Your task to perform on an android device: turn on improve location accuracy Image 0: 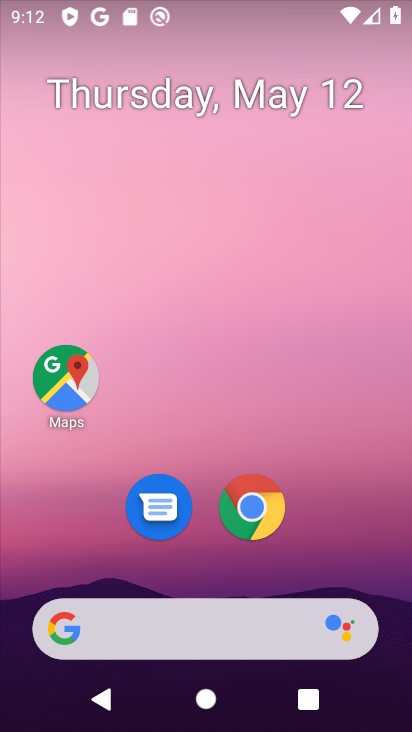
Step 0: drag from (184, 566) to (189, 173)
Your task to perform on an android device: turn on improve location accuracy Image 1: 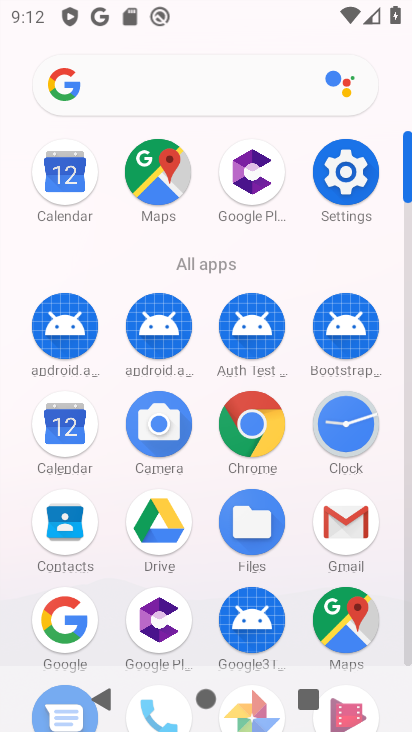
Step 1: click (327, 164)
Your task to perform on an android device: turn on improve location accuracy Image 2: 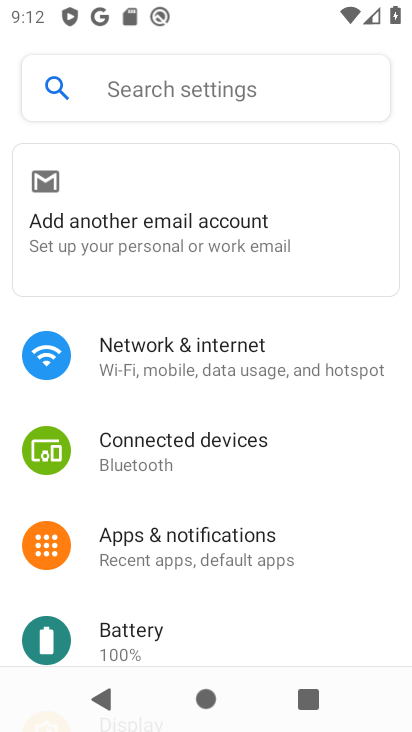
Step 2: drag from (291, 554) to (306, 291)
Your task to perform on an android device: turn on improve location accuracy Image 3: 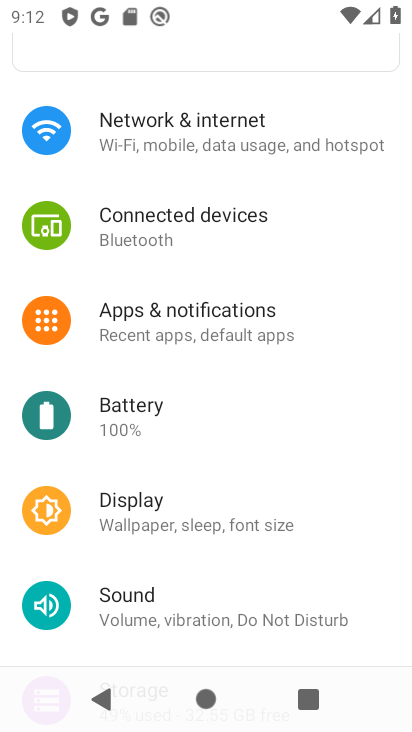
Step 3: drag from (263, 516) to (251, 307)
Your task to perform on an android device: turn on improve location accuracy Image 4: 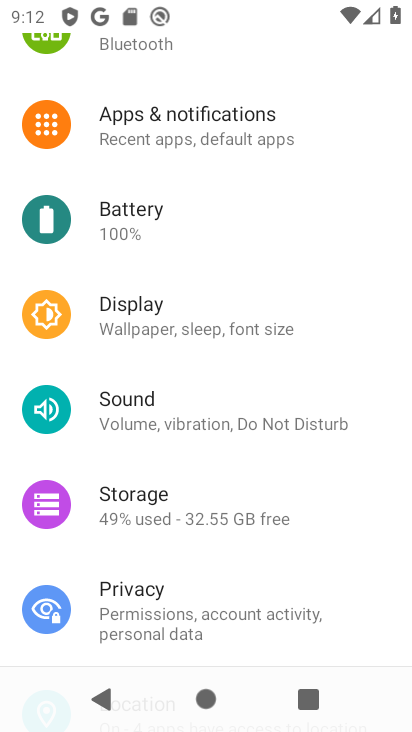
Step 4: drag from (179, 593) to (207, 260)
Your task to perform on an android device: turn on improve location accuracy Image 5: 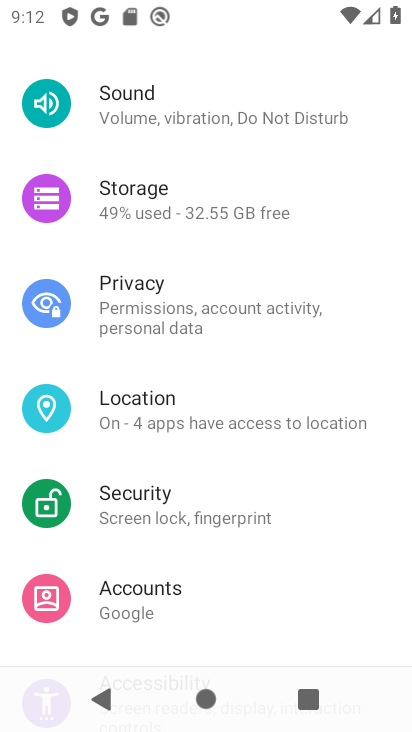
Step 5: drag from (196, 552) to (216, 421)
Your task to perform on an android device: turn on improve location accuracy Image 6: 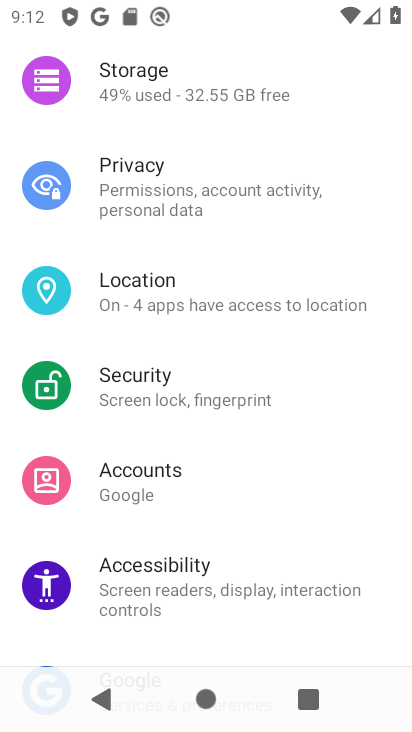
Step 6: click (135, 308)
Your task to perform on an android device: turn on improve location accuracy Image 7: 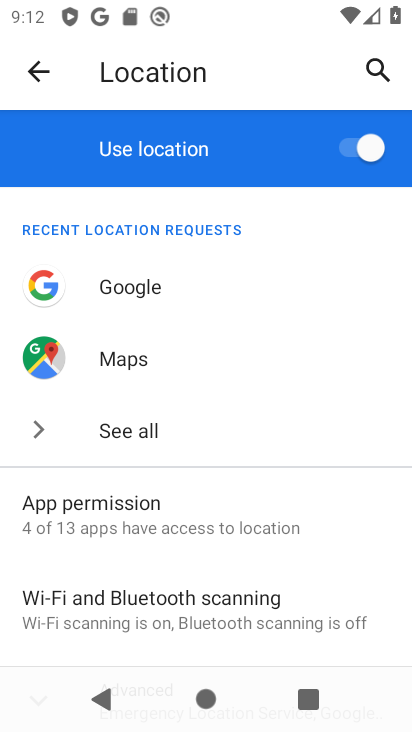
Step 7: drag from (156, 552) to (198, 320)
Your task to perform on an android device: turn on improve location accuracy Image 8: 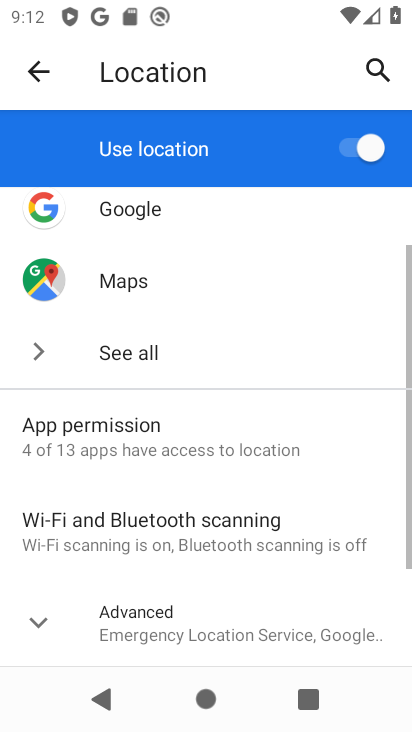
Step 8: drag from (227, 602) to (209, 430)
Your task to perform on an android device: turn on improve location accuracy Image 9: 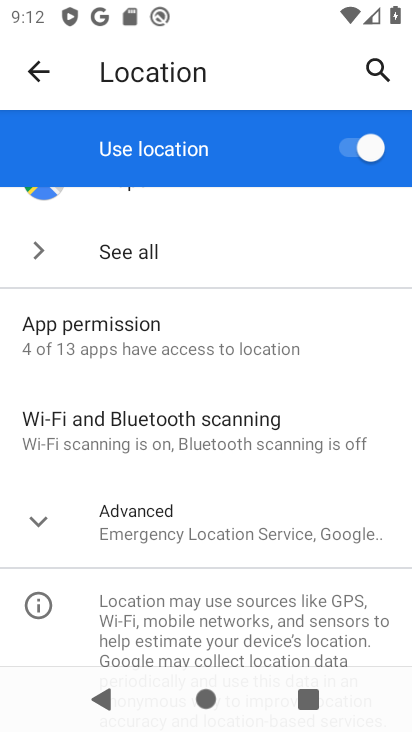
Step 9: click (209, 516)
Your task to perform on an android device: turn on improve location accuracy Image 10: 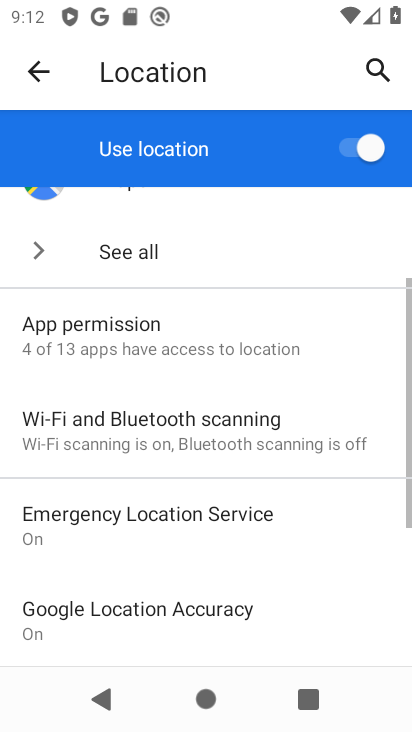
Step 10: drag from (221, 605) to (233, 312)
Your task to perform on an android device: turn on improve location accuracy Image 11: 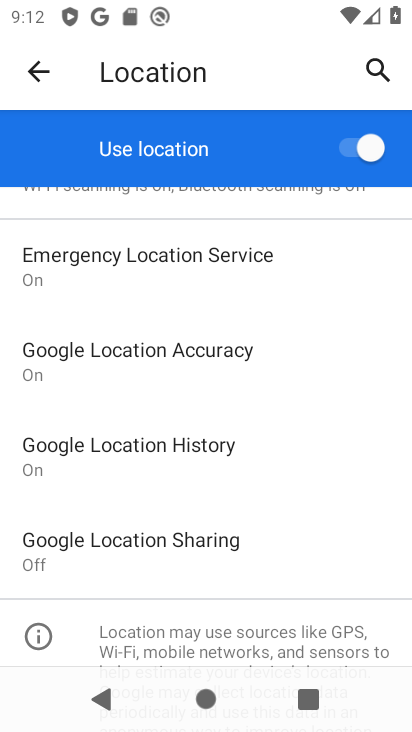
Step 11: click (236, 335)
Your task to perform on an android device: turn on improve location accuracy Image 12: 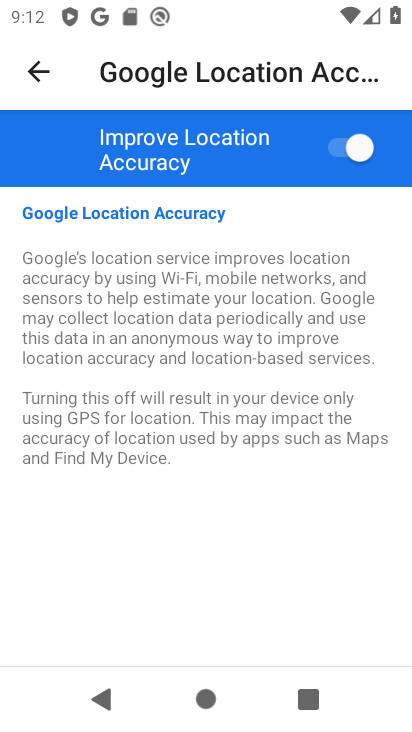
Step 12: task complete